Your task to perform on an android device: Show me popular games on the Play Store Image 0: 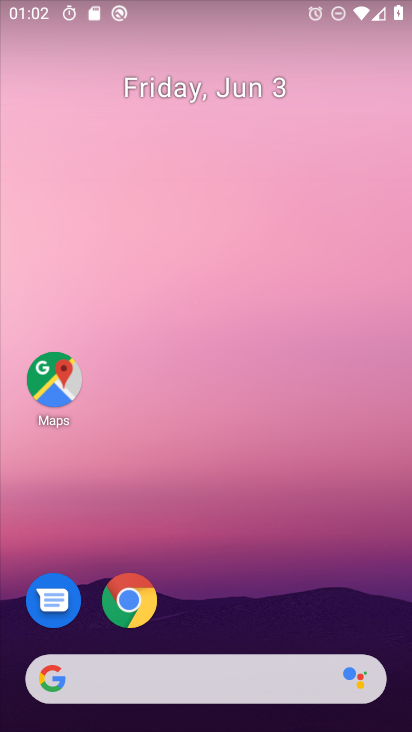
Step 0: drag from (219, 612) to (292, 35)
Your task to perform on an android device: Show me popular games on the Play Store Image 1: 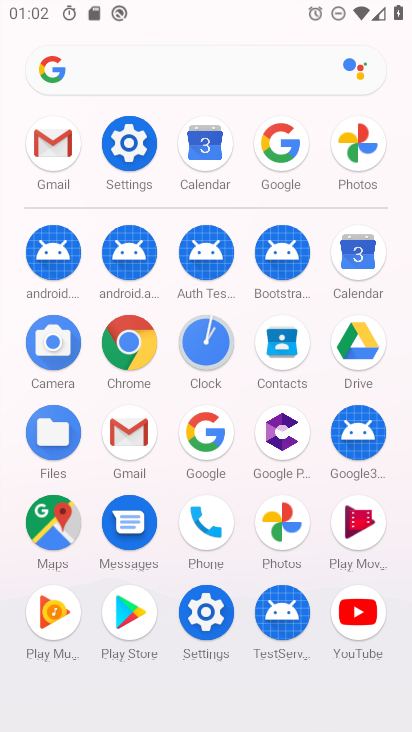
Step 1: click (124, 621)
Your task to perform on an android device: Show me popular games on the Play Store Image 2: 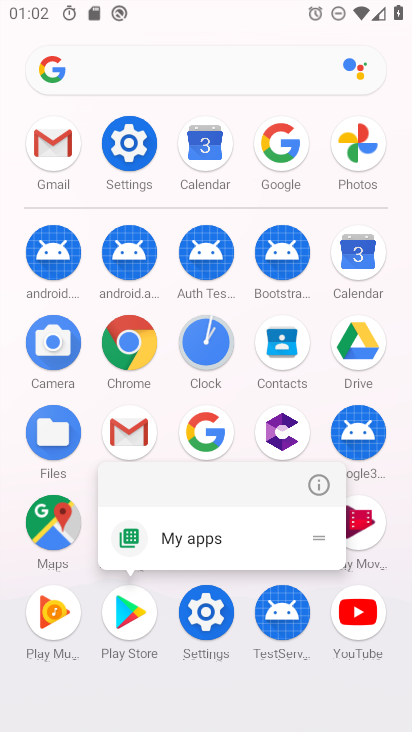
Step 2: click (125, 621)
Your task to perform on an android device: Show me popular games on the Play Store Image 3: 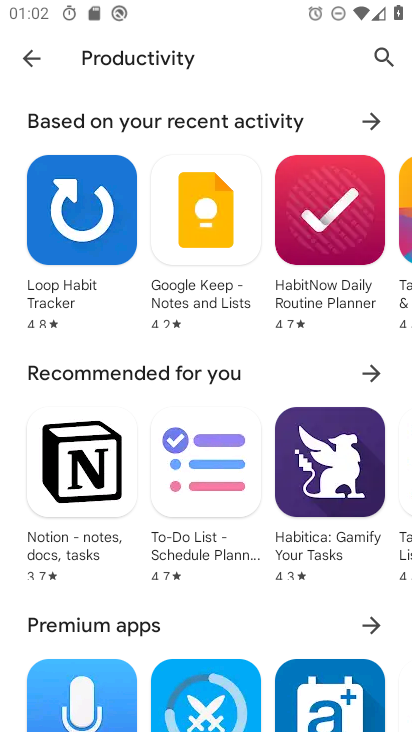
Step 3: press back button
Your task to perform on an android device: Show me popular games on the Play Store Image 4: 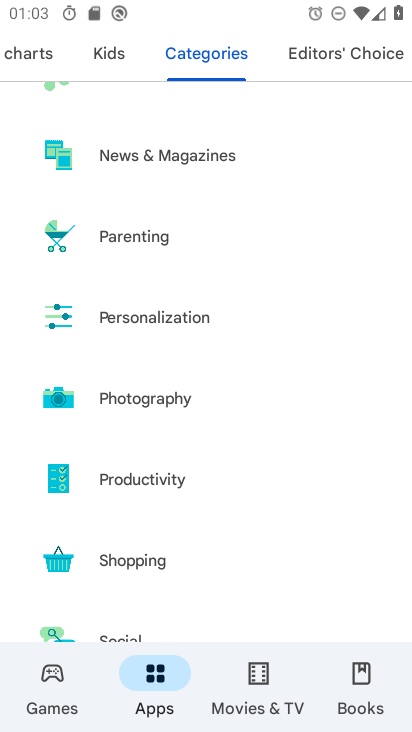
Step 4: click (52, 684)
Your task to perform on an android device: Show me popular games on the Play Store Image 5: 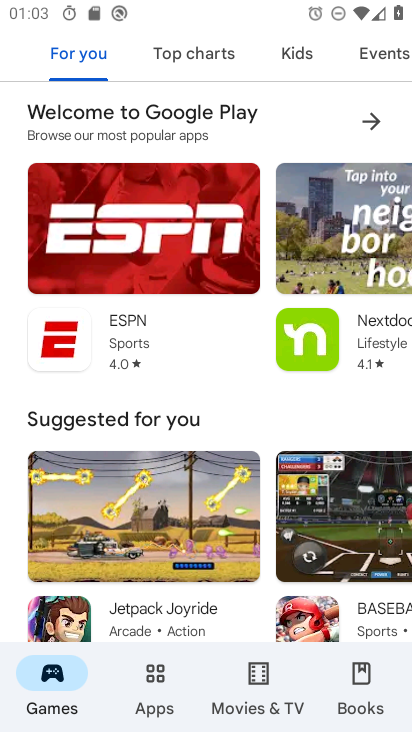
Step 5: drag from (250, 543) to (248, 81)
Your task to perform on an android device: Show me popular games on the Play Store Image 6: 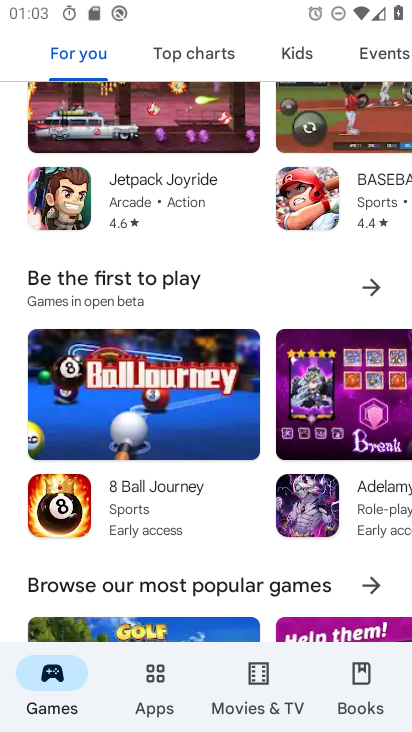
Step 6: click (223, 583)
Your task to perform on an android device: Show me popular games on the Play Store Image 7: 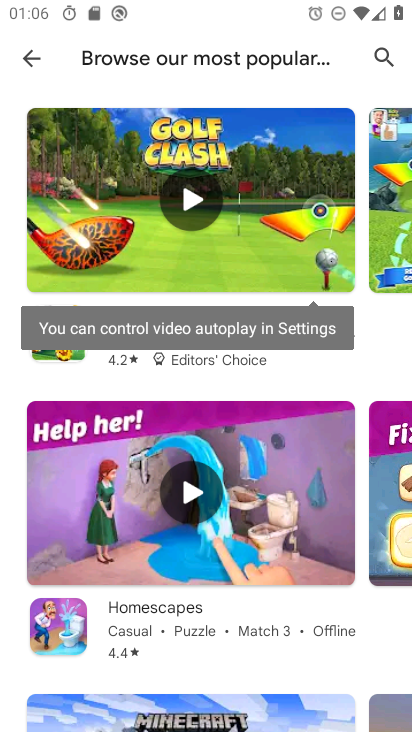
Step 7: task complete